Your task to perform on an android device: Open display settings Image 0: 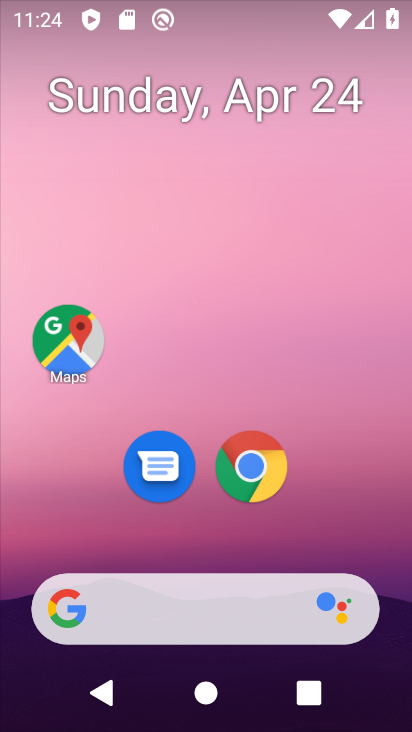
Step 0: drag from (264, 294) to (296, 33)
Your task to perform on an android device: Open display settings Image 1: 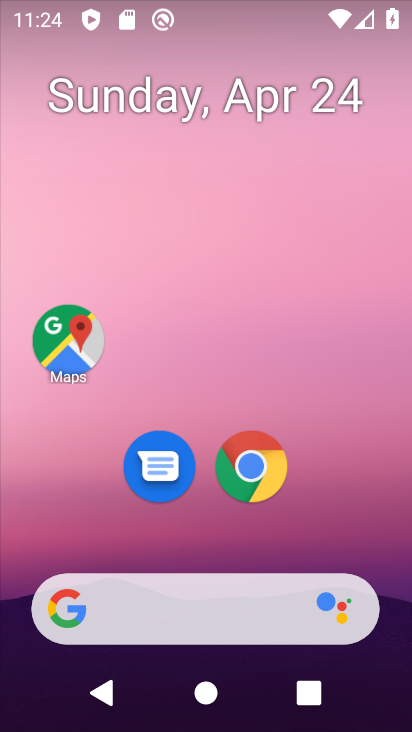
Step 1: drag from (221, 559) to (319, 52)
Your task to perform on an android device: Open display settings Image 2: 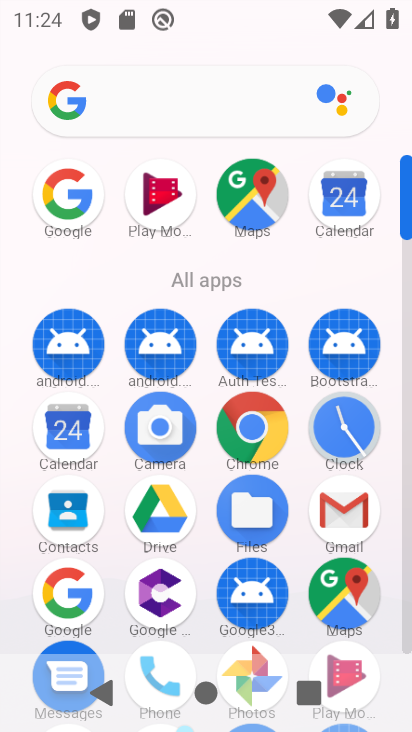
Step 2: drag from (263, 428) to (316, 117)
Your task to perform on an android device: Open display settings Image 3: 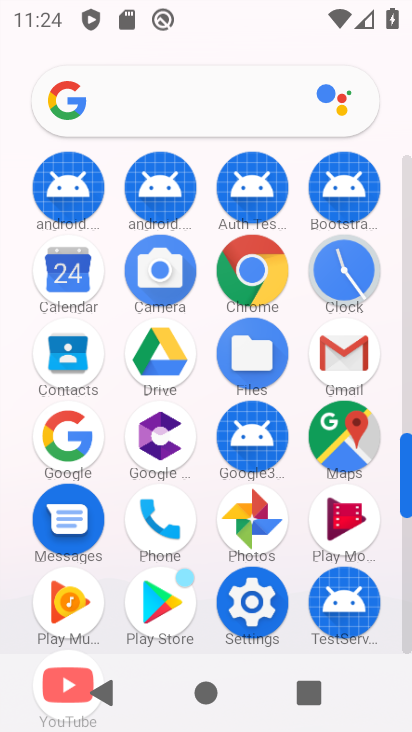
Step 3: click (237, 602)
Your task to perform on an android device: Open display settings Image 4: 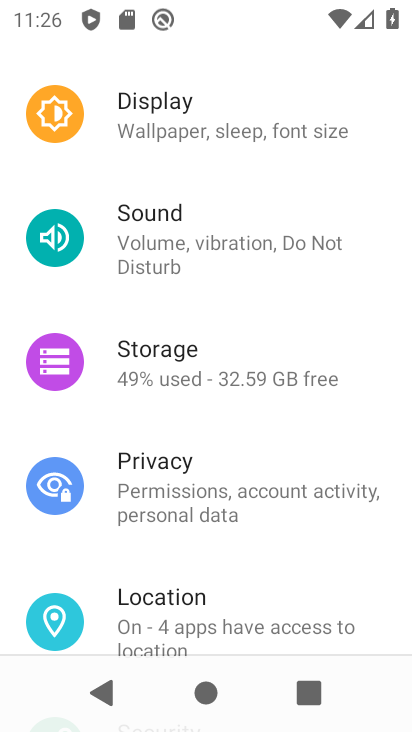
Step 4: click (265, 113)
Your task to perform on an android device: Open display settings Image 5: 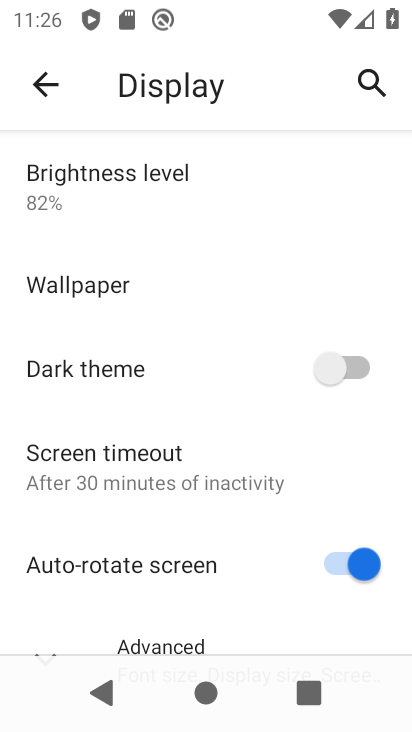
Step 5: task complete